Your task to perform on an android device: toggle pop-ups in chrome Image 0: 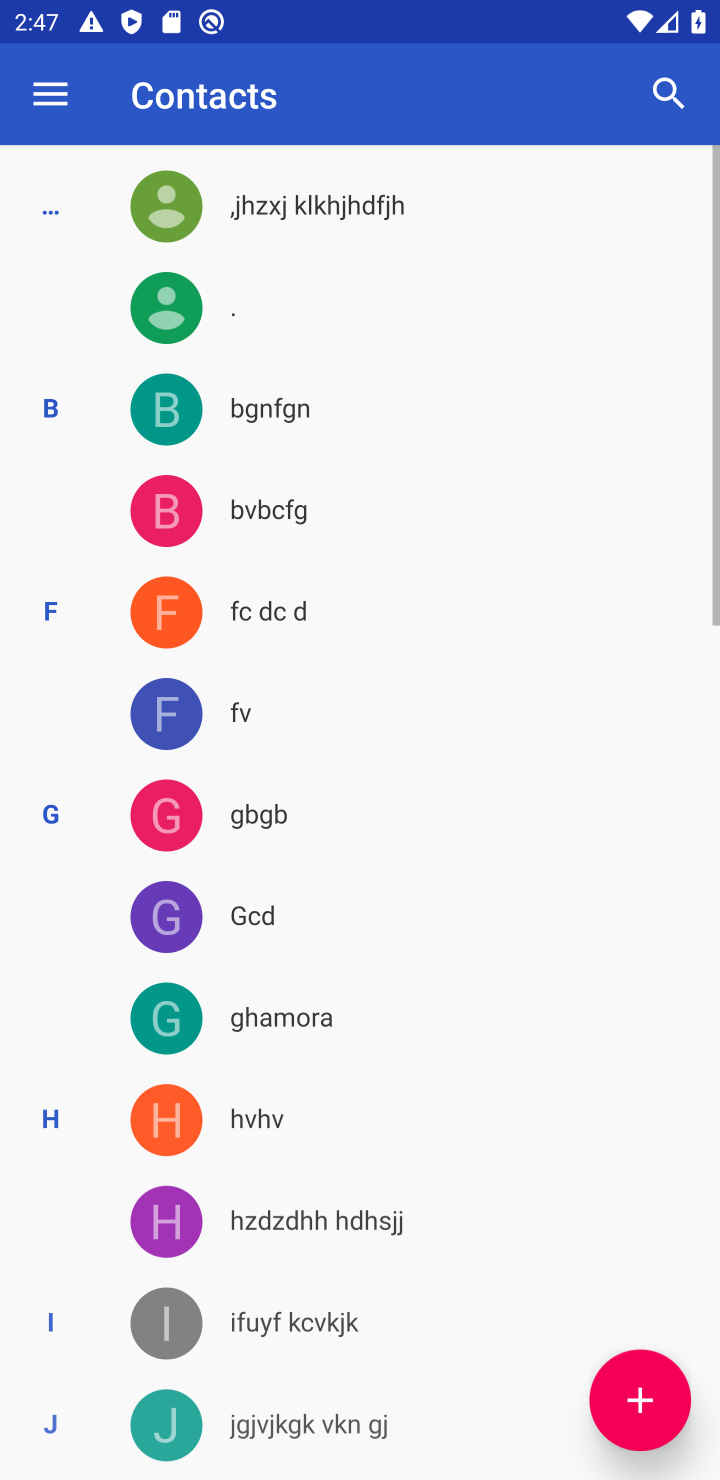
Step 0: press home button
Your task to perform on an android device: toggle pop-ups in chrome Image 1: 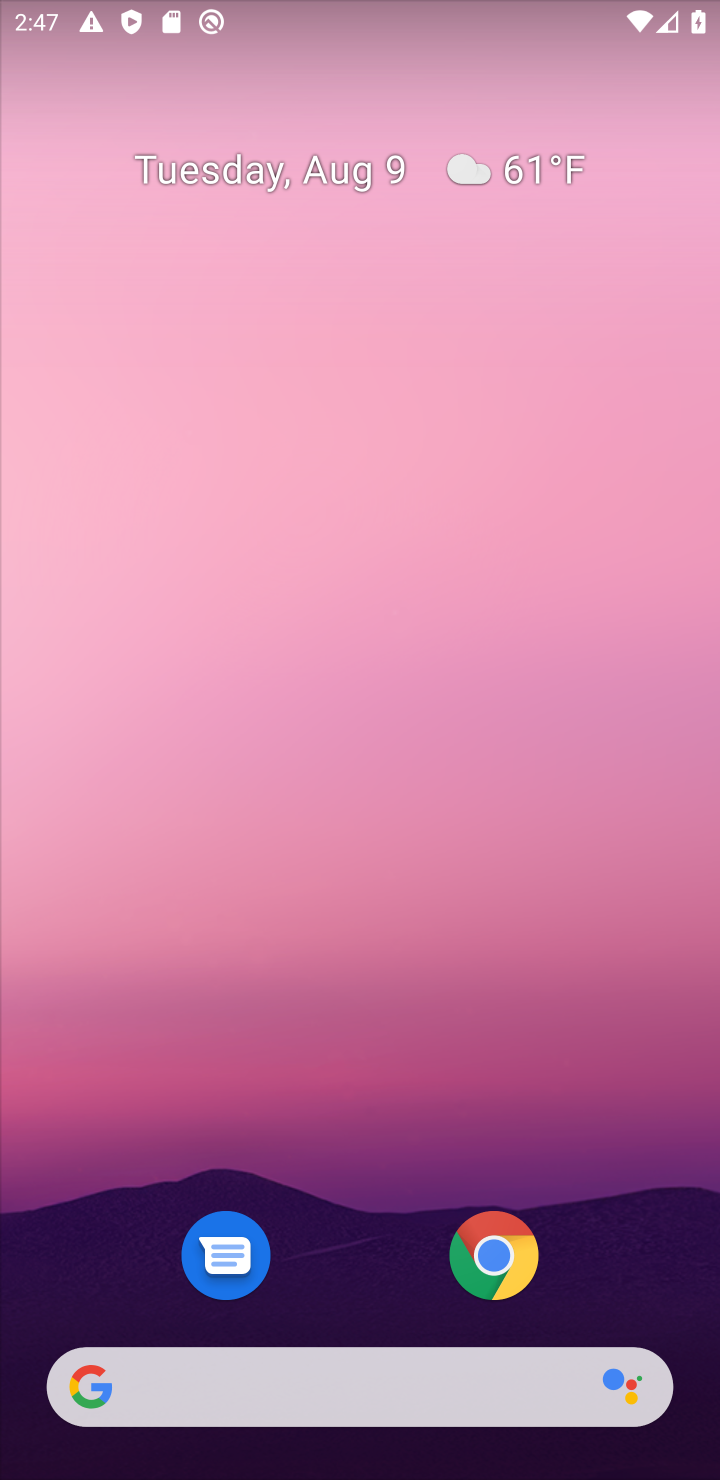
Step 1: drag from (503, 883) to (534, 361)
Your task to perform on an android device: toggle pop-ups in chrome Image 2: 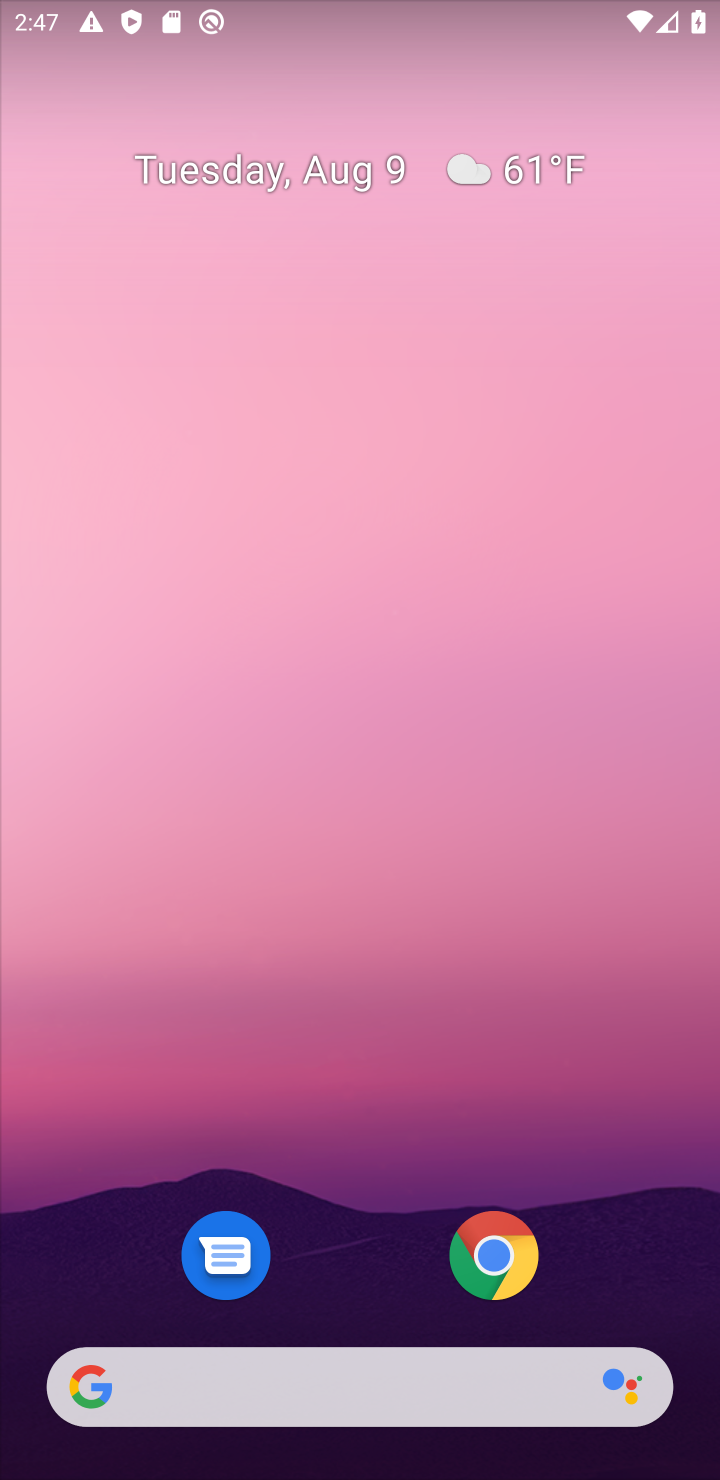
Step 2: drag from (290, 1235) to (367, 391)
Your task to perform on an android device: toggle pop-ups in chrome Image 3: 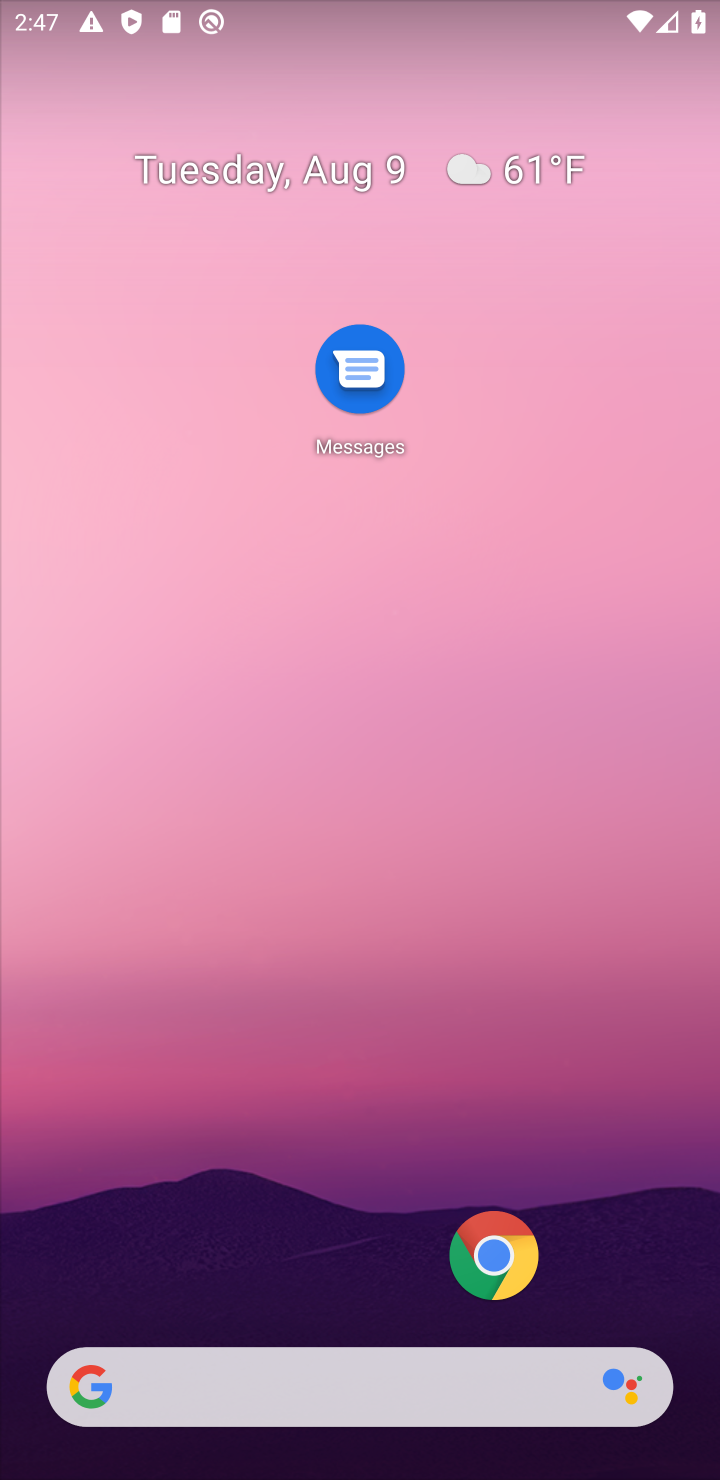
Step 3: drag from (345, 1094) to (430, 563)
Your task to perform on an android device: toggle pop-ups in chrome Image 4: 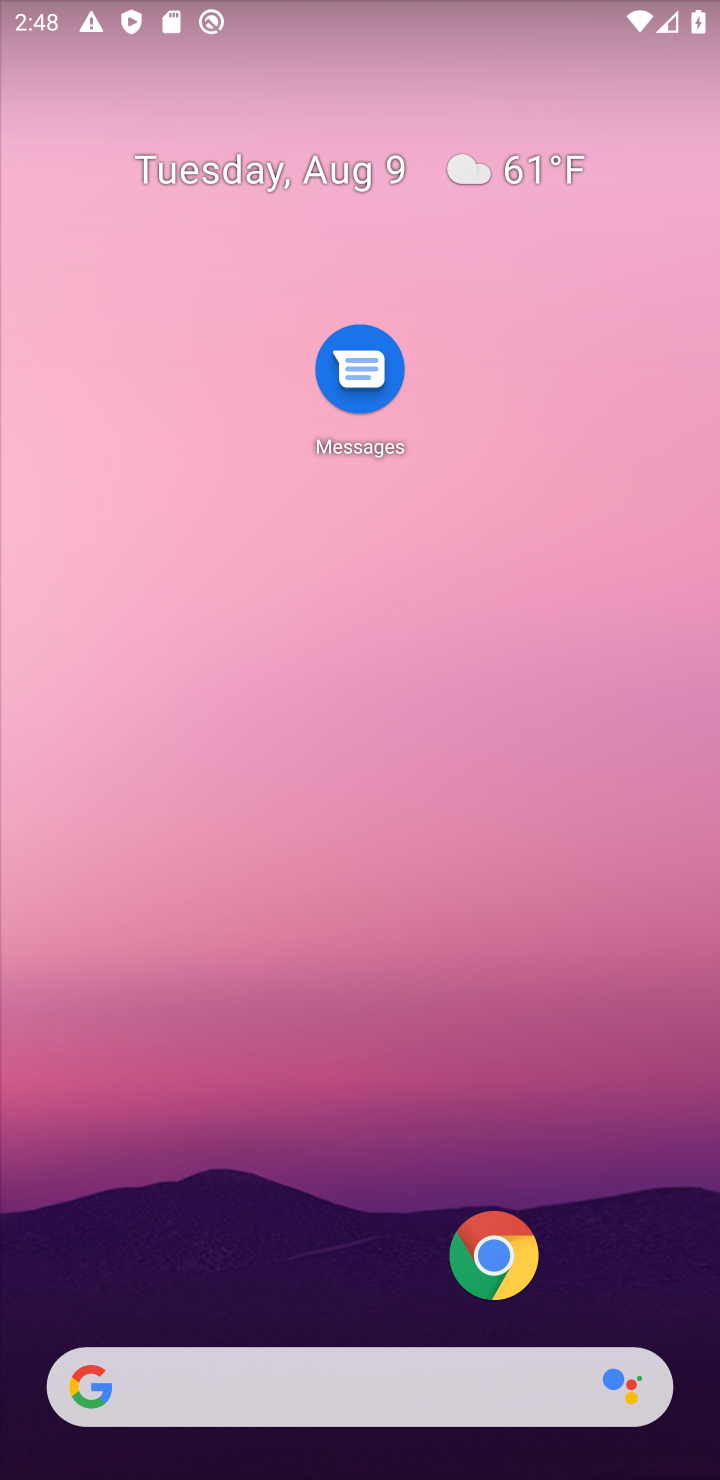
Step 4: drag from (216, 1372) to (717, 348)
Your task to perform on an android device: toggle pop-ups in chrome Image 5: 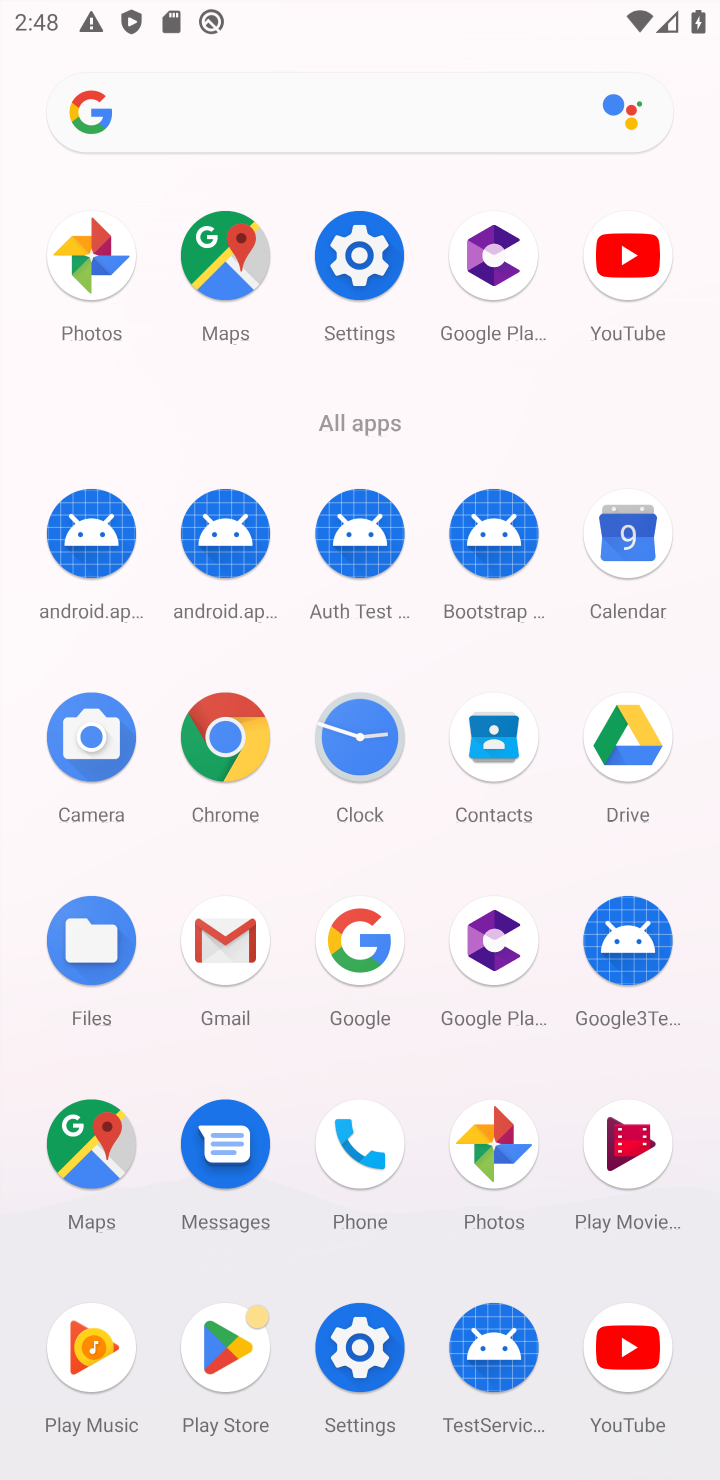
Step 5: drag from (369, 1212) to (374, 750)
Your task to perform on an android device: toggle pop-ups in chrome Image 6: 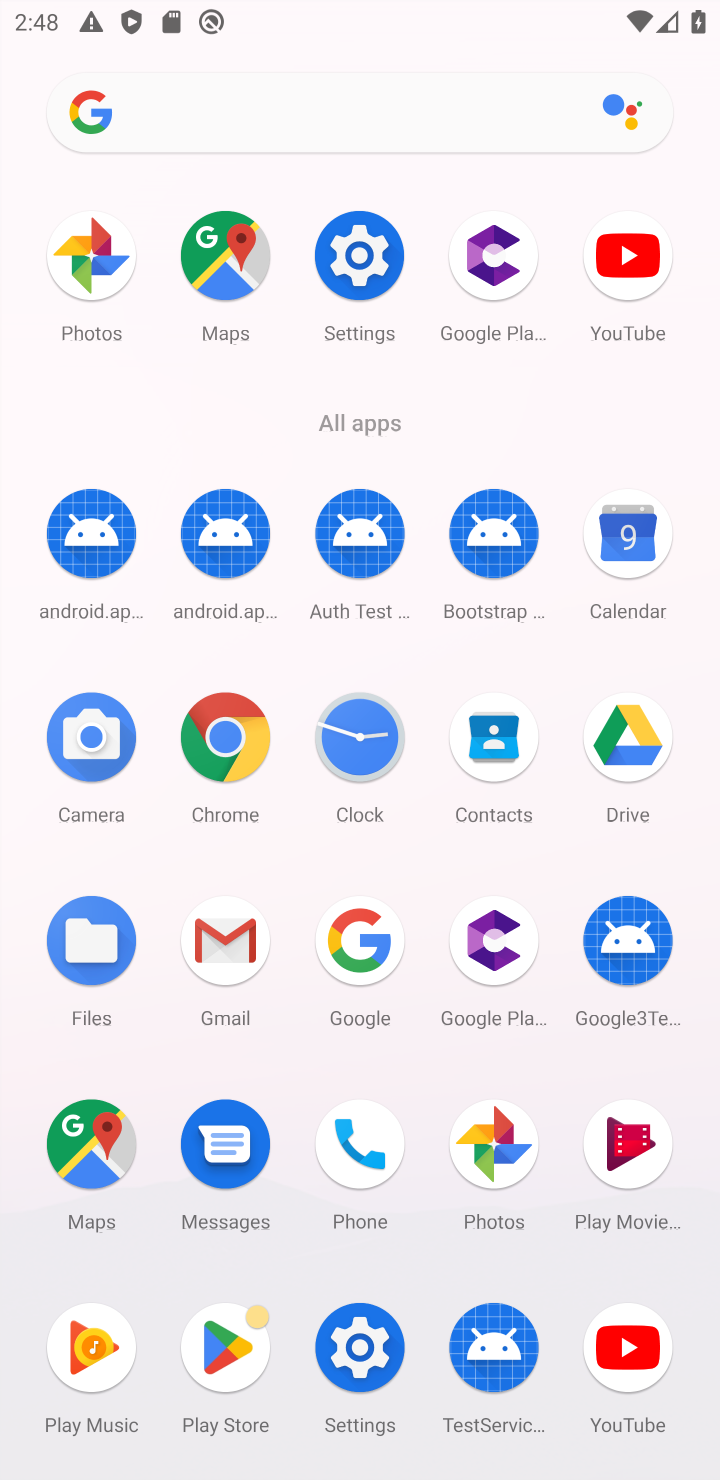
Step 6: click (204, 718)
Your task to perform on an android device: toggle pop-ups in chrome Image 7: 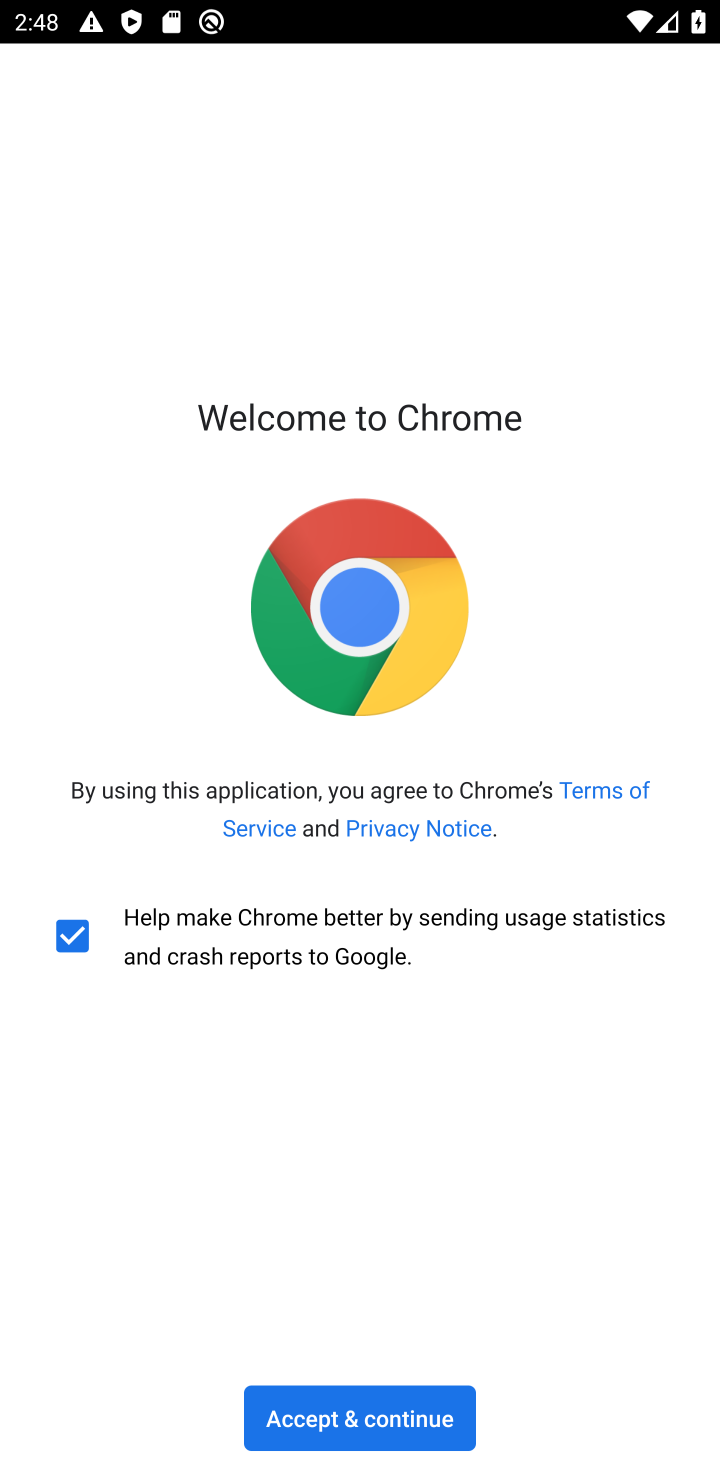
Step 7: click (356, 1400)
Your task to perform on an android device: toggle pop-ups in chrome Image 8: 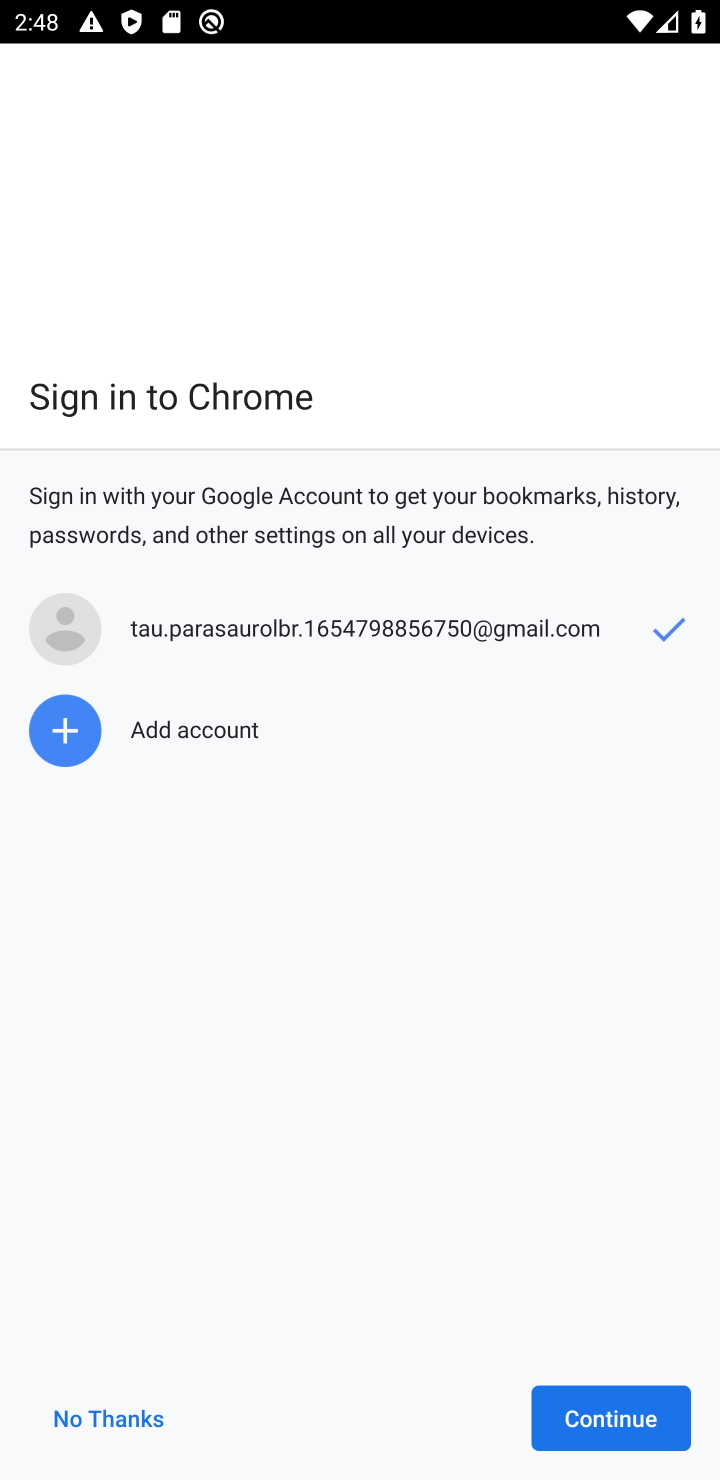
Step 8: click (651, 1425)
Your task to perform on an android device: toggle pop-ups in chrome Image 9: 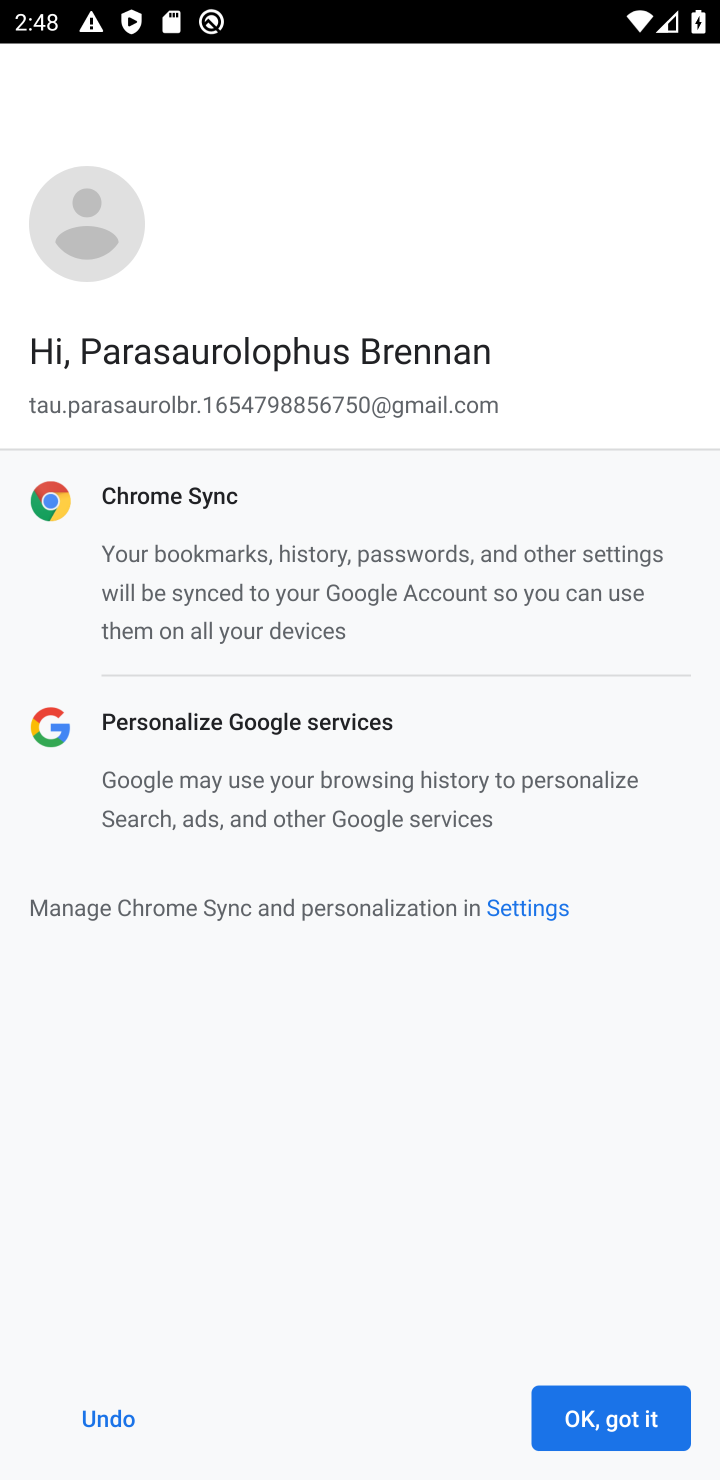
Step 9: click (651, 1425)
Your task to perform on an android device: toggle pop-ups in chrome Image 10: 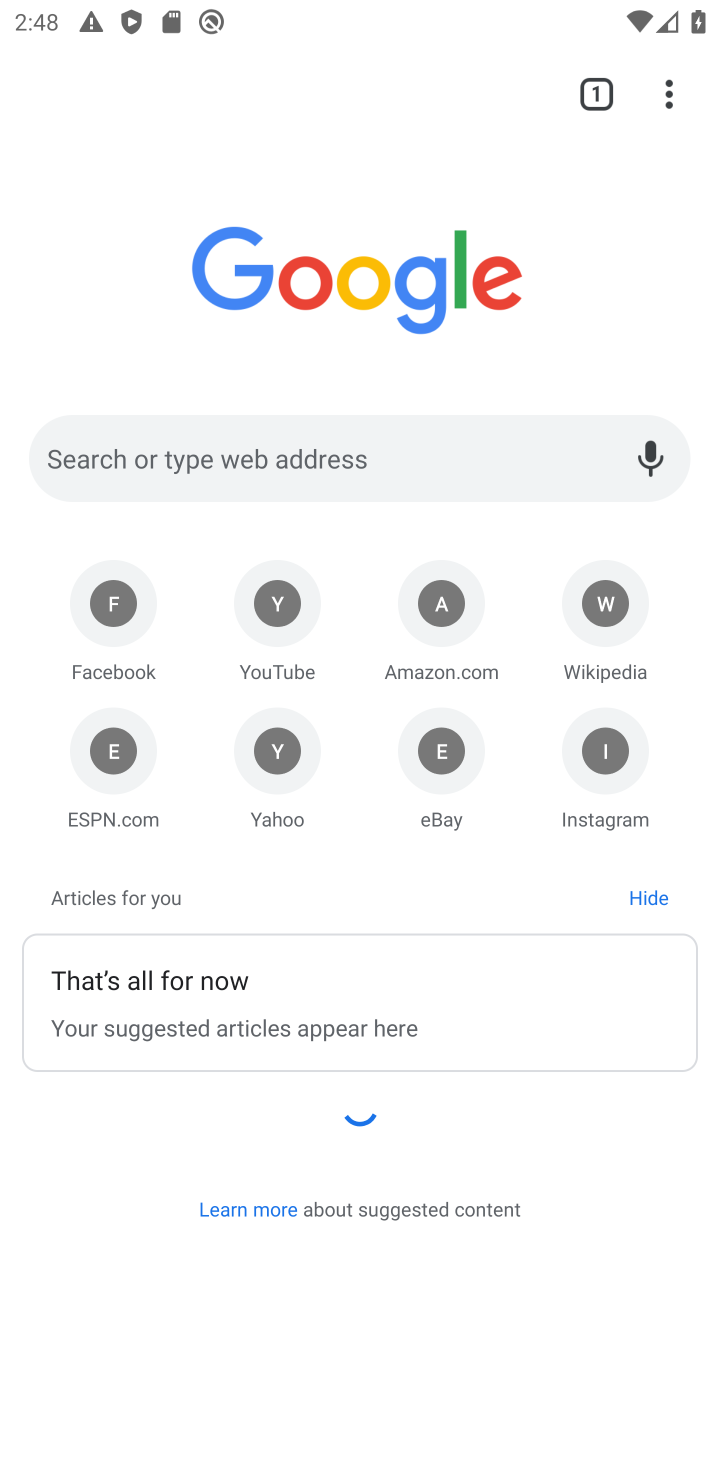
Step 10: click (684, 73)
Your task to perform on an android device: toggle pop-ups in chrome Image 11: 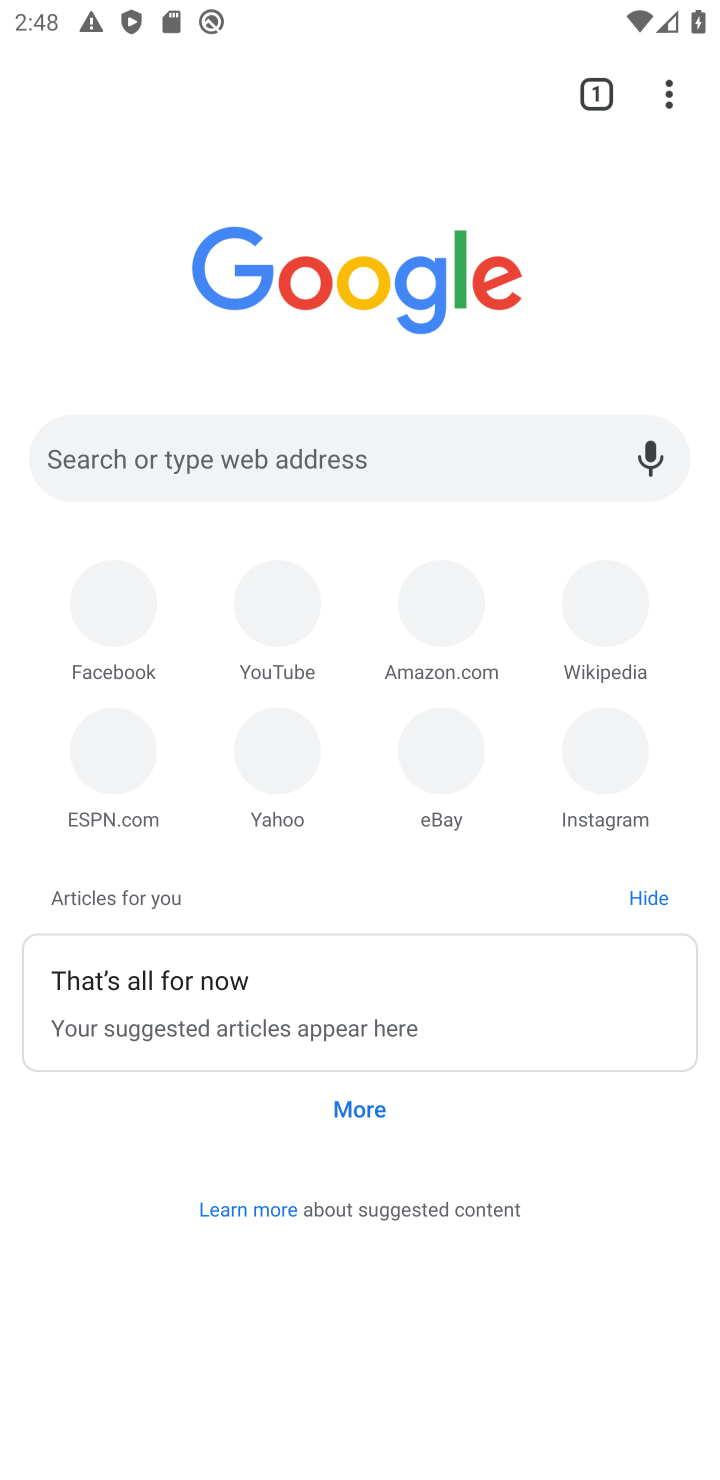
Step 11: click (682, 76)
Your task to perform on an android device: toggle pop-ups in chrome Image 12: 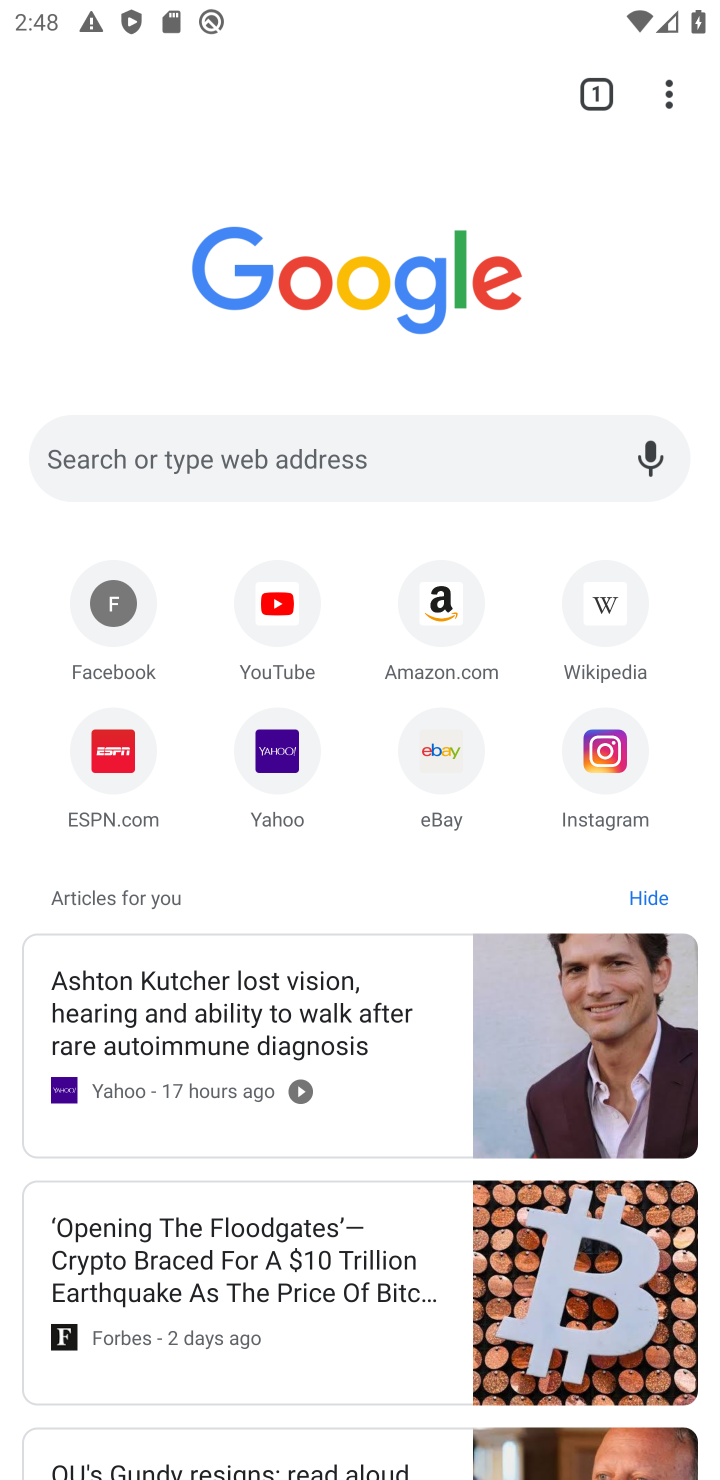
Step 12: click (689, 89)
Your task to perform on an android device: toggle pop-ups in chrome Image 13: 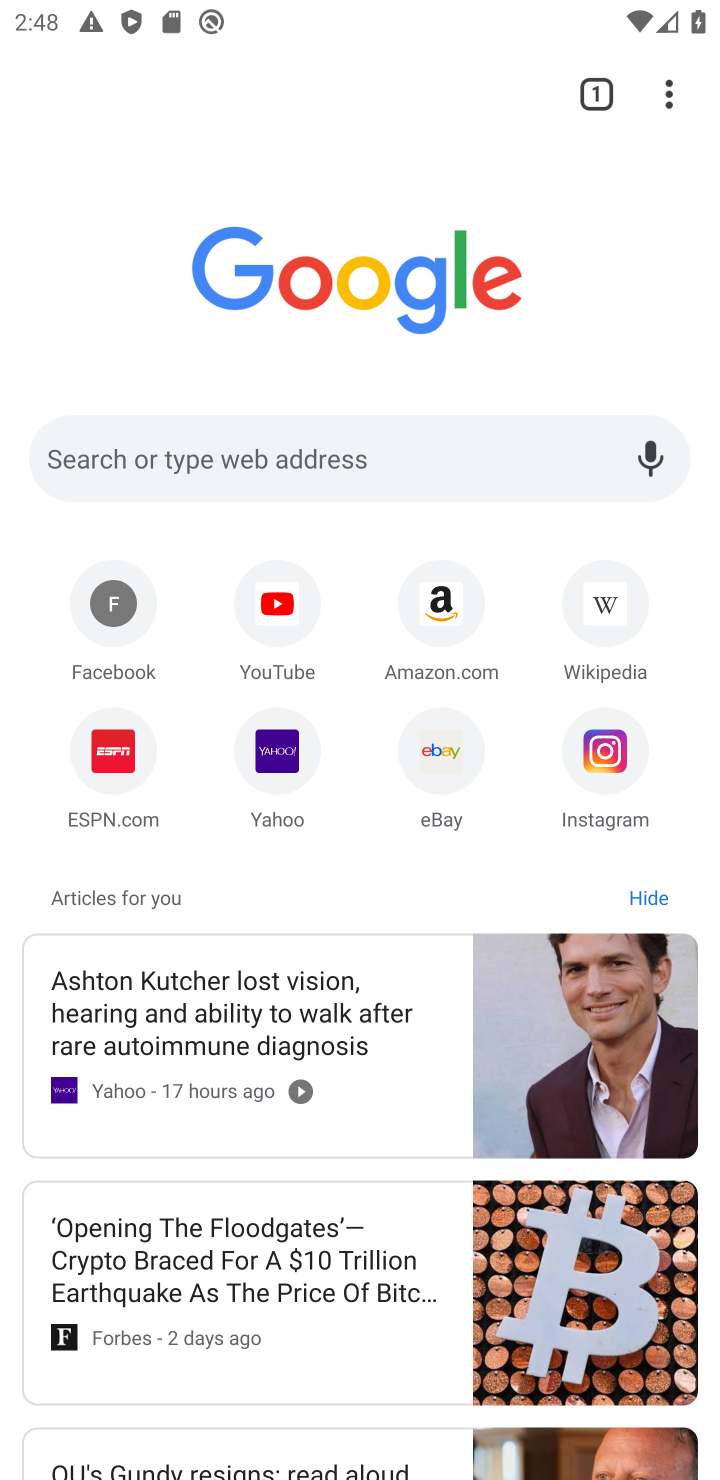
Step 13: click (680, 78)
Your task to perform on an android device: toggle pop-ups in chrome Image 14: 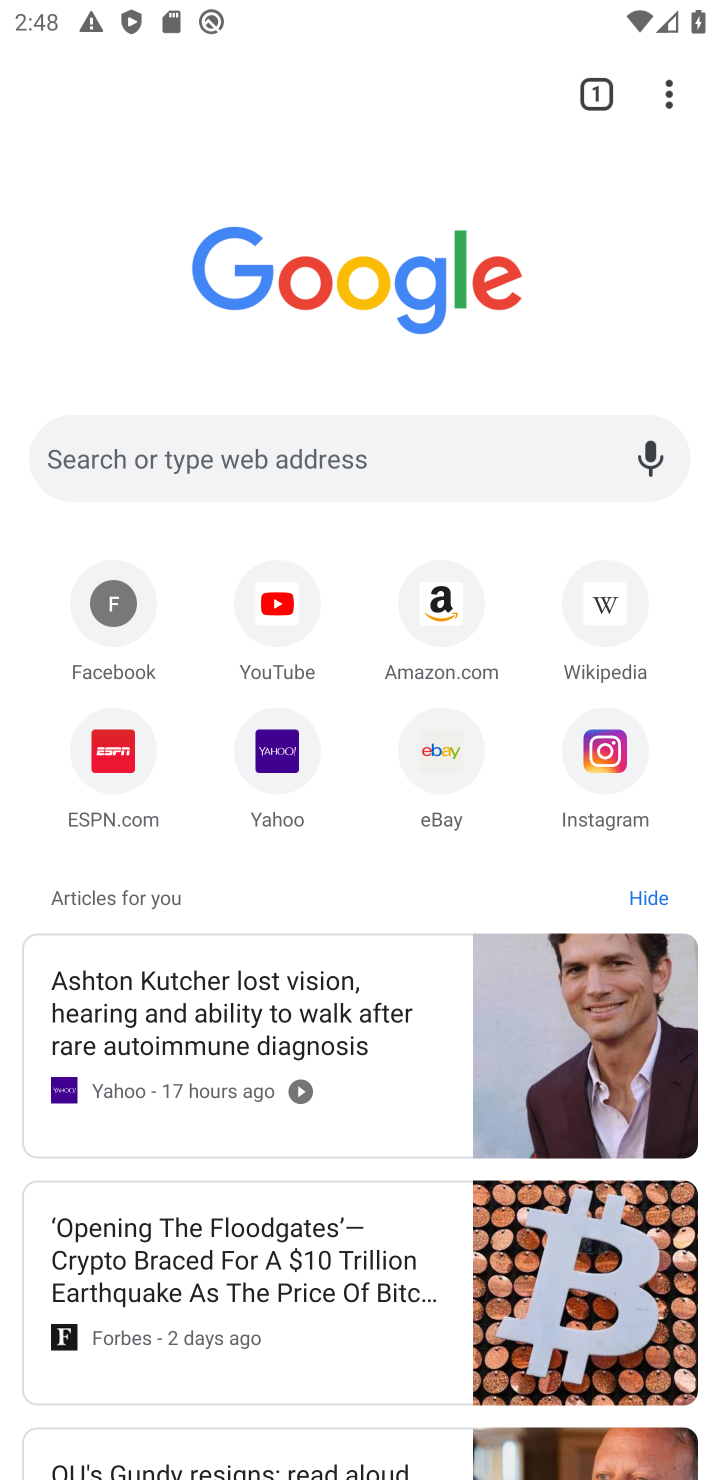
Step 14: click (666, 96)
Your task to perform on an android device: toggle pop-ups in chrome Image 15: 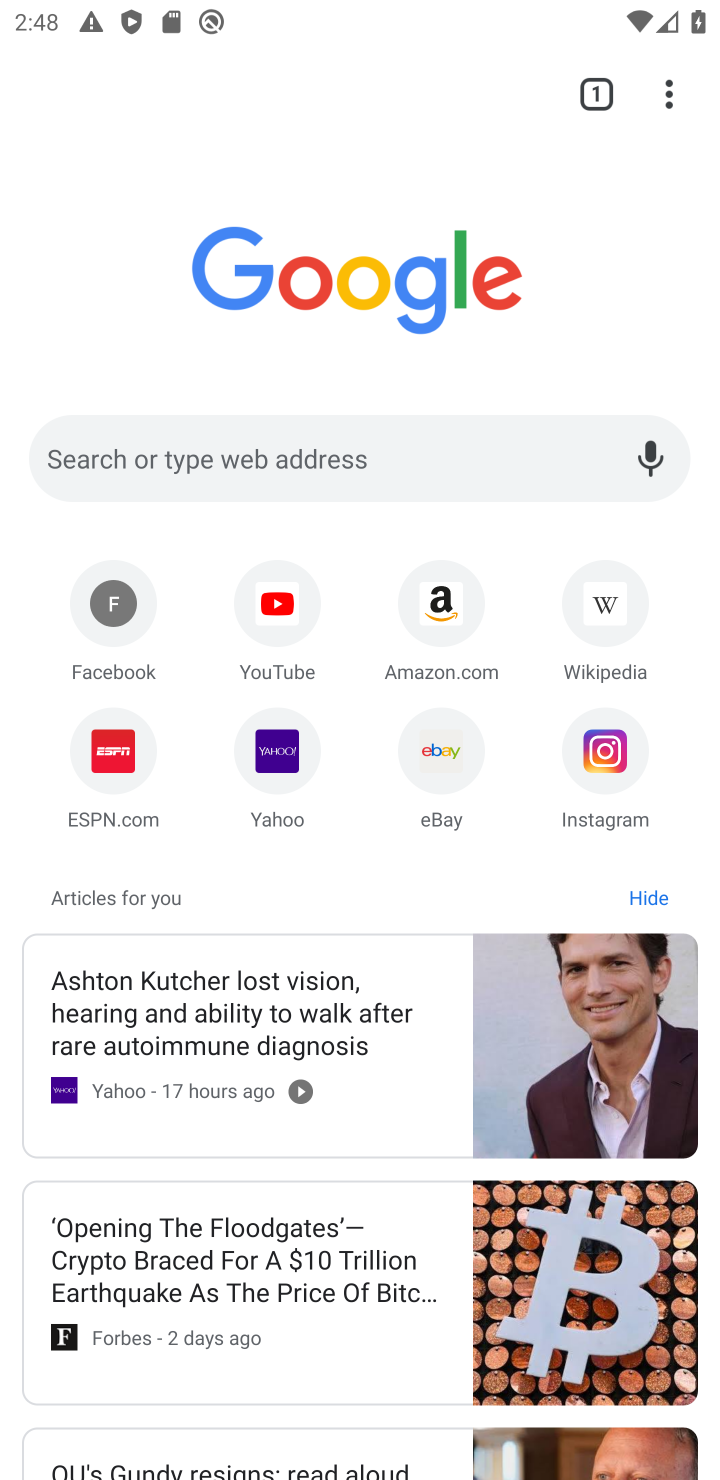
Step 15: click (666, 96)
Your task to perform on an android device: toggle pop-ups in chrome Image 16: 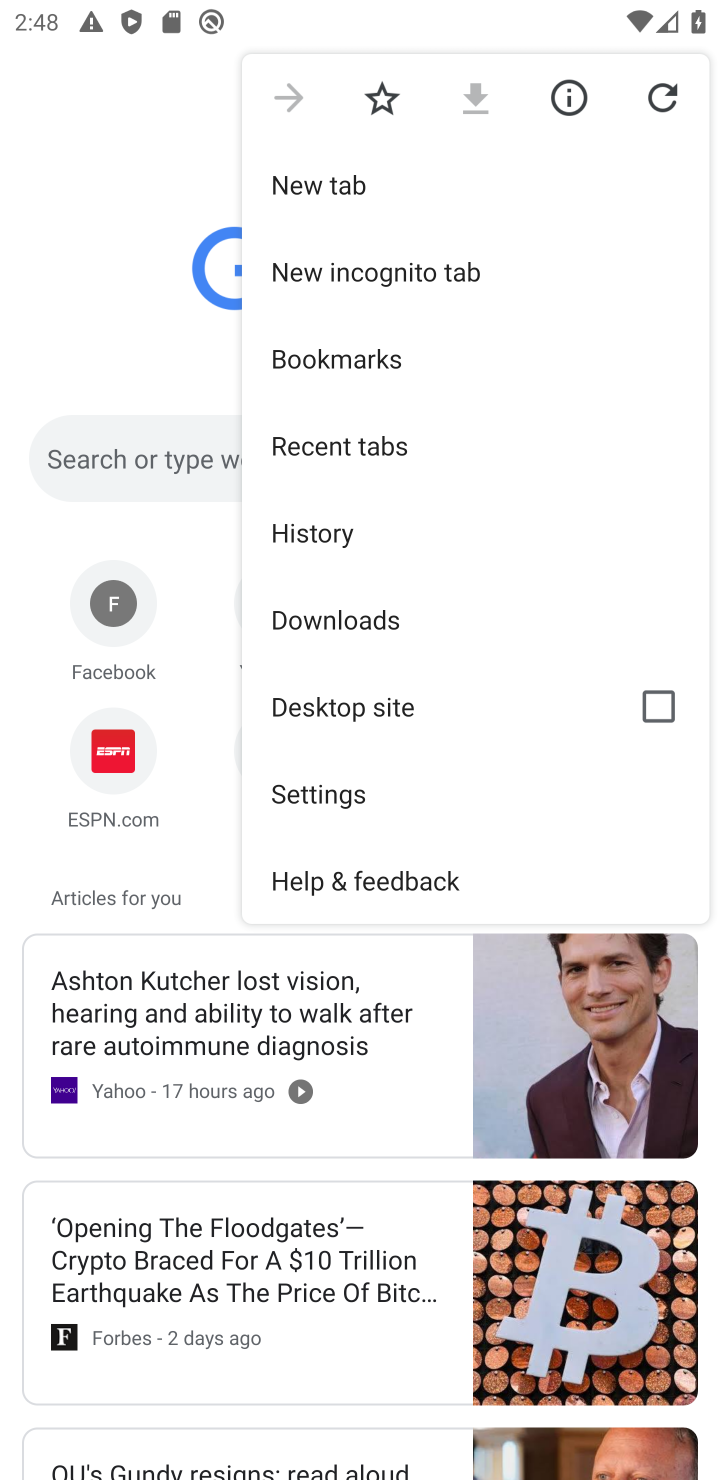
Step 16: click (666, 96)
Your task to perform on an android device: toggle pop-ups in chrome Image 17: 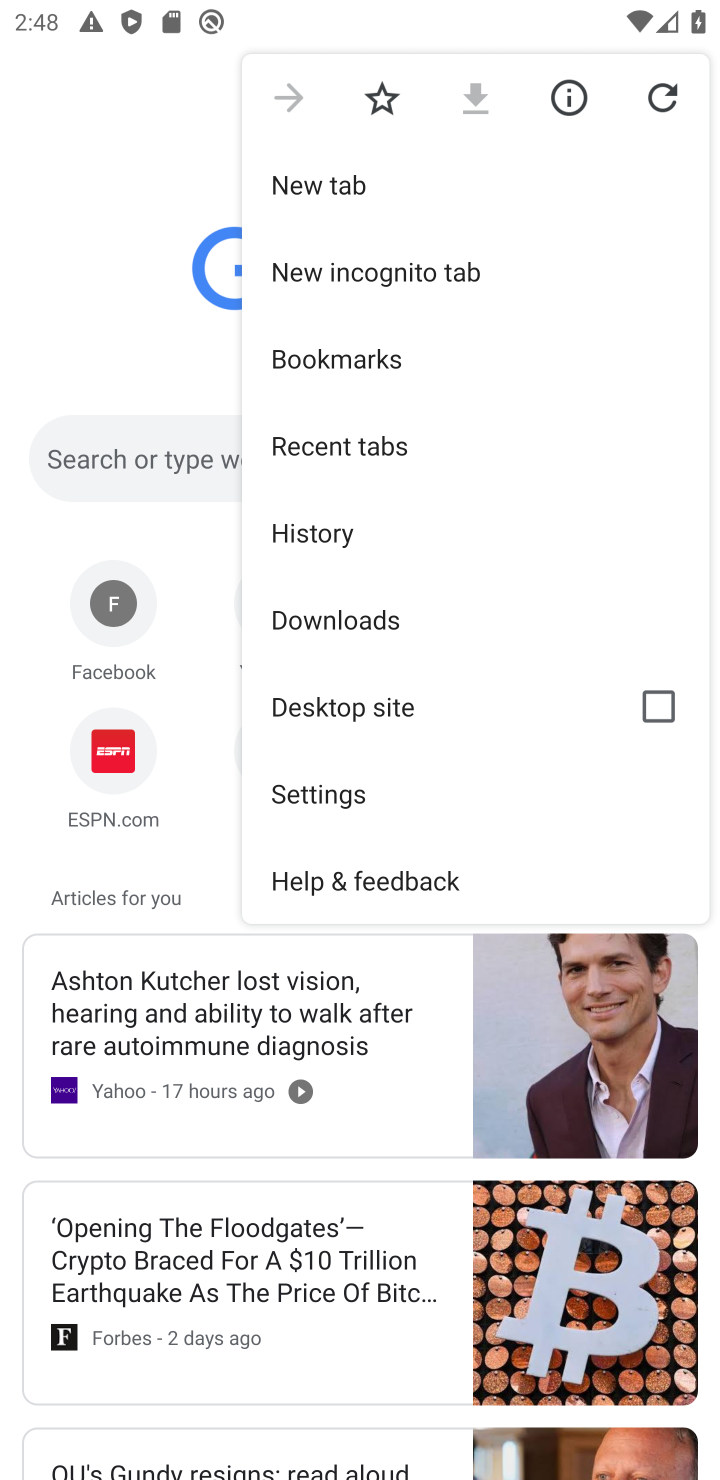
Step 17: click (666, 96)
Your task to perform on an android device: toggle pop-ups in chrome Image 18: 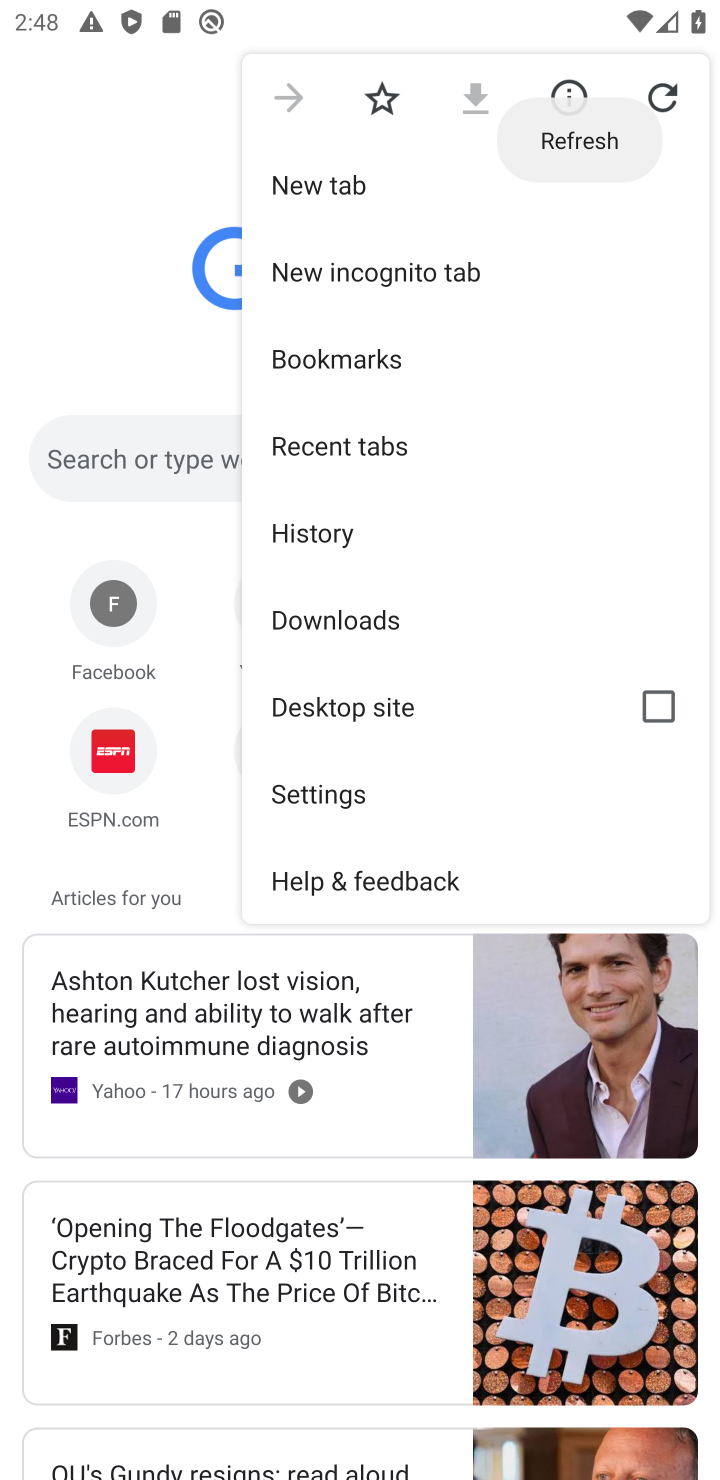
Step 18: click (377, 793)
Your task to perform on an android device: toggle pop-ups in chrome Image 19: 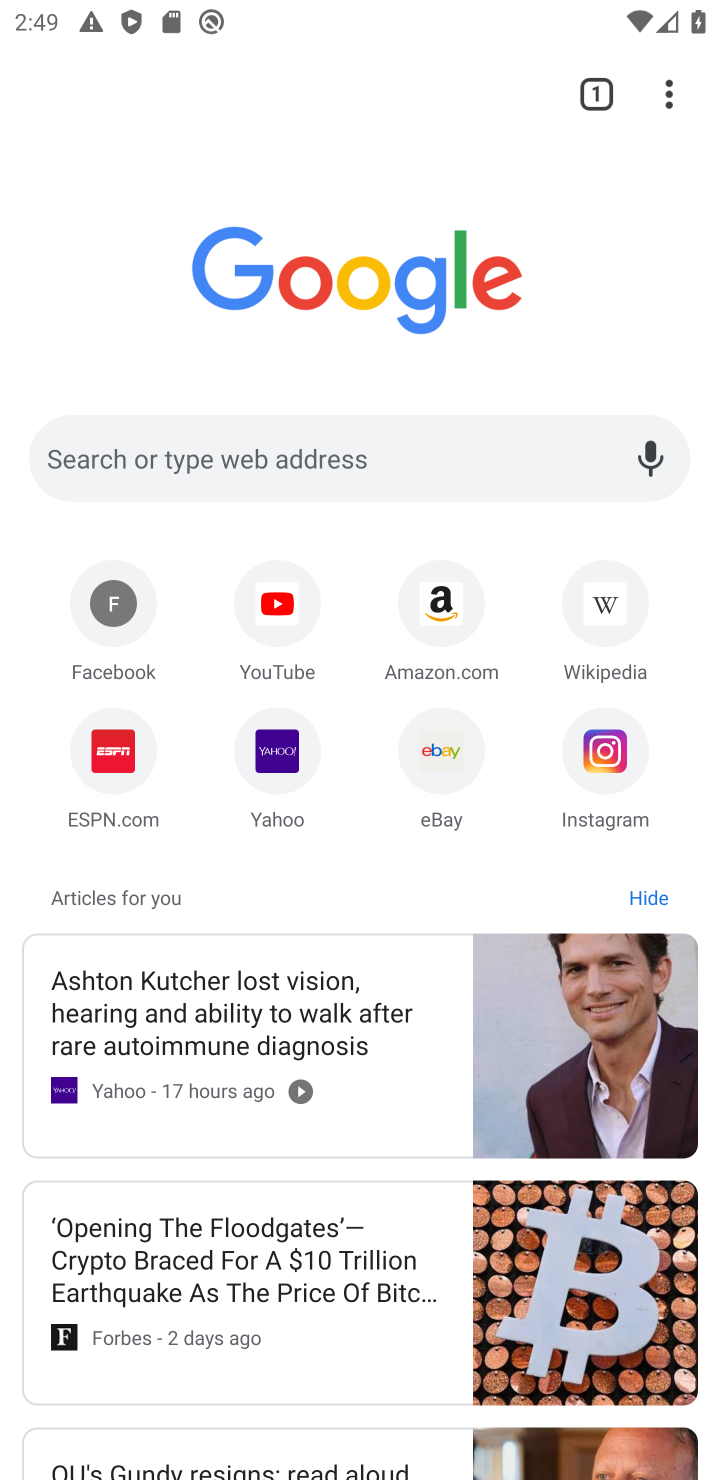
Step 19: click (377, 793)
Your task to perform on an android device: toggle pop-ups in chrome Image 20: 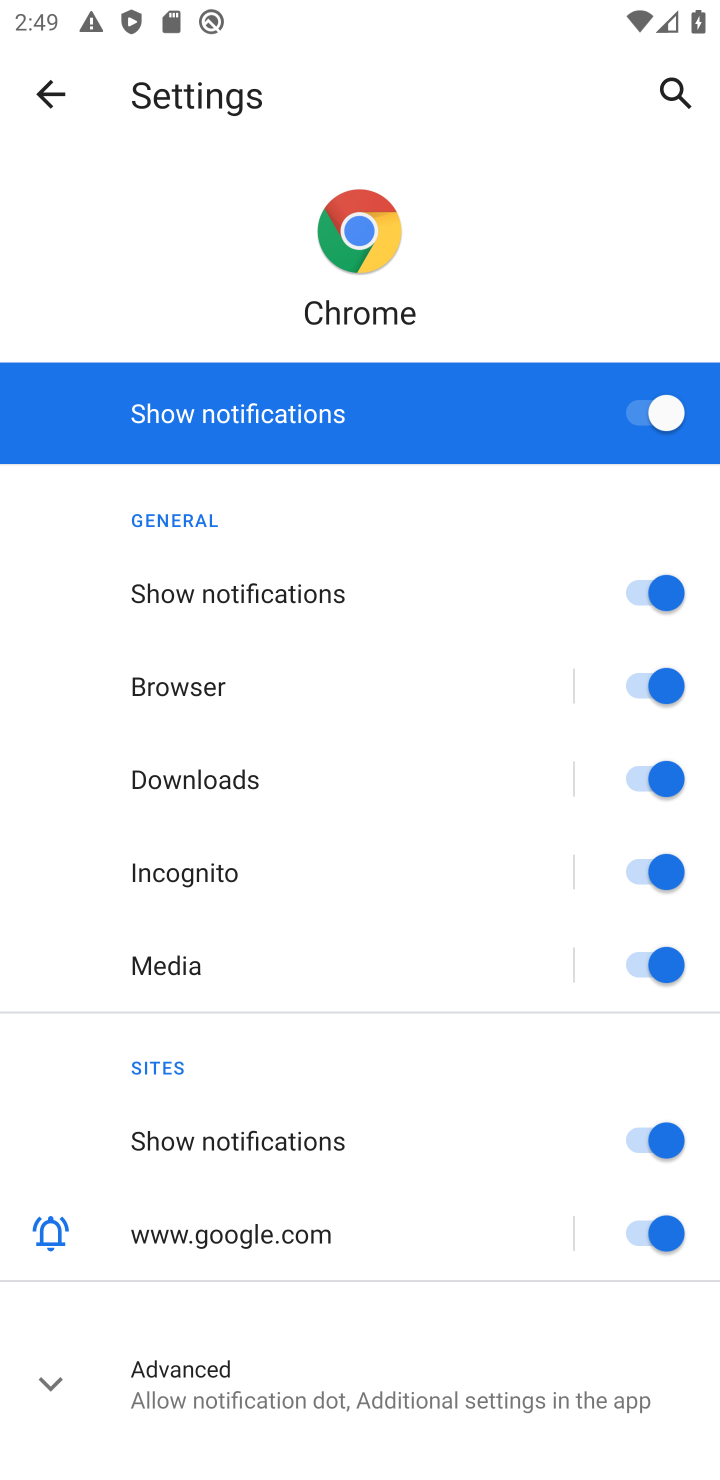
Step 20: click (65, 73)
Your task to perform on an android device: toggle pop-ups in chrome Image 21: 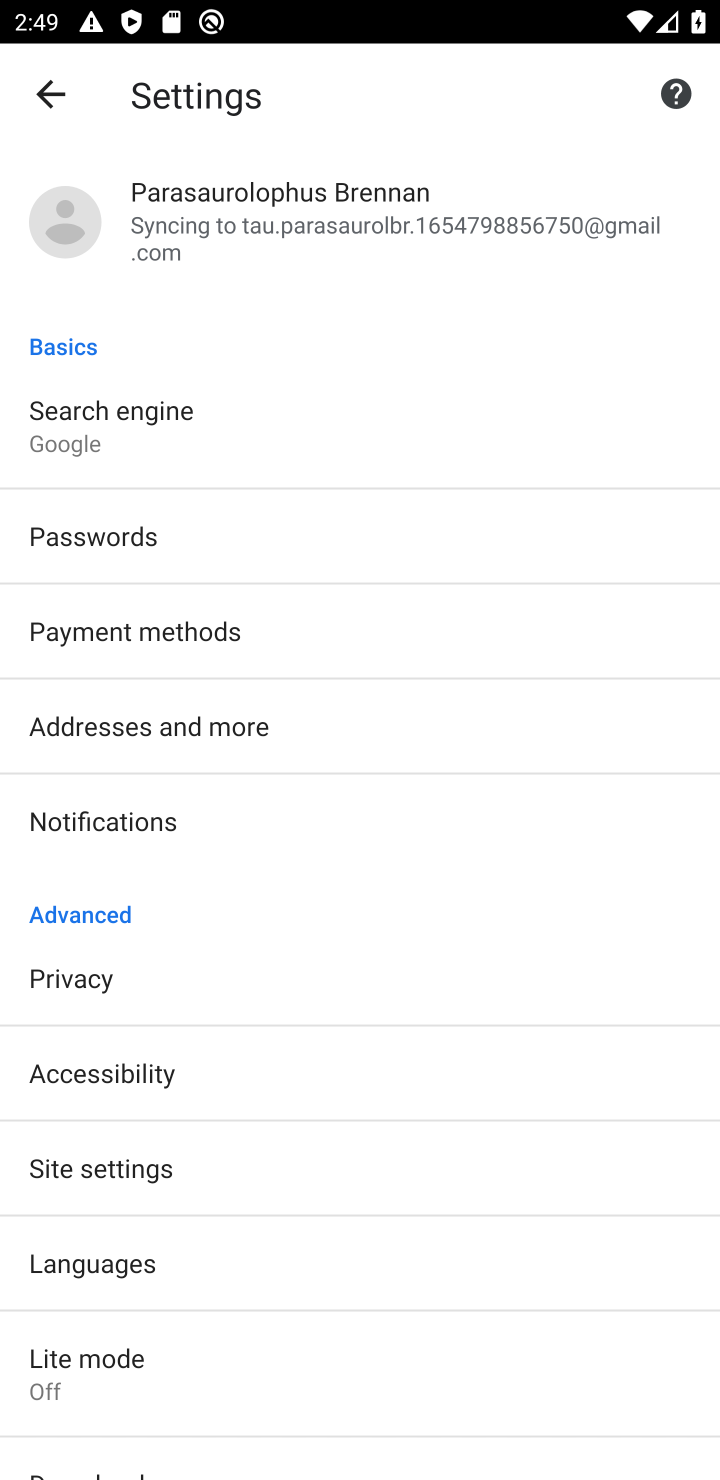
Step 21: drag from (245, 1279) to (292, 784)
Your task to perform on an android device: toggle pop-ups in chrome Image 22: 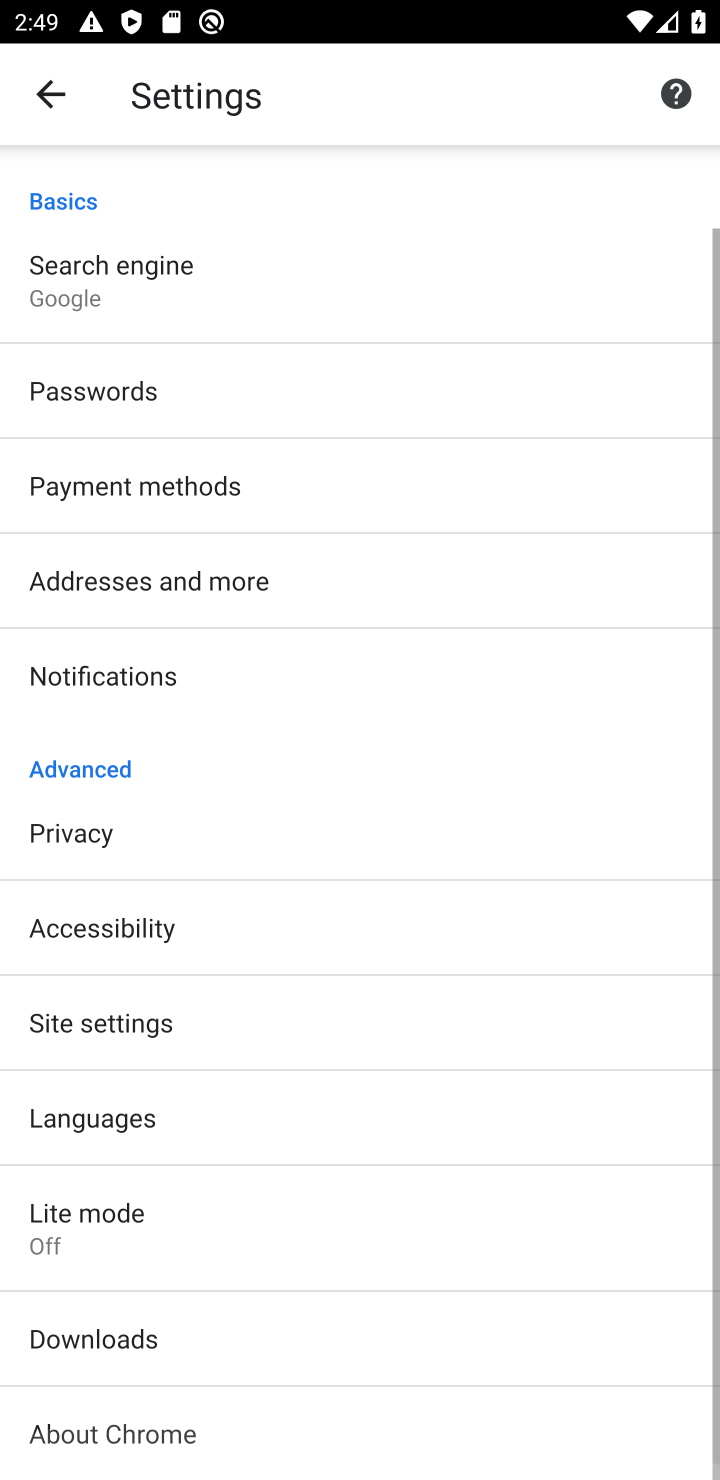
Step 22: click (193, 1019)
Your task to perform on an android device: toggle pop-ups in chrome Image 23: 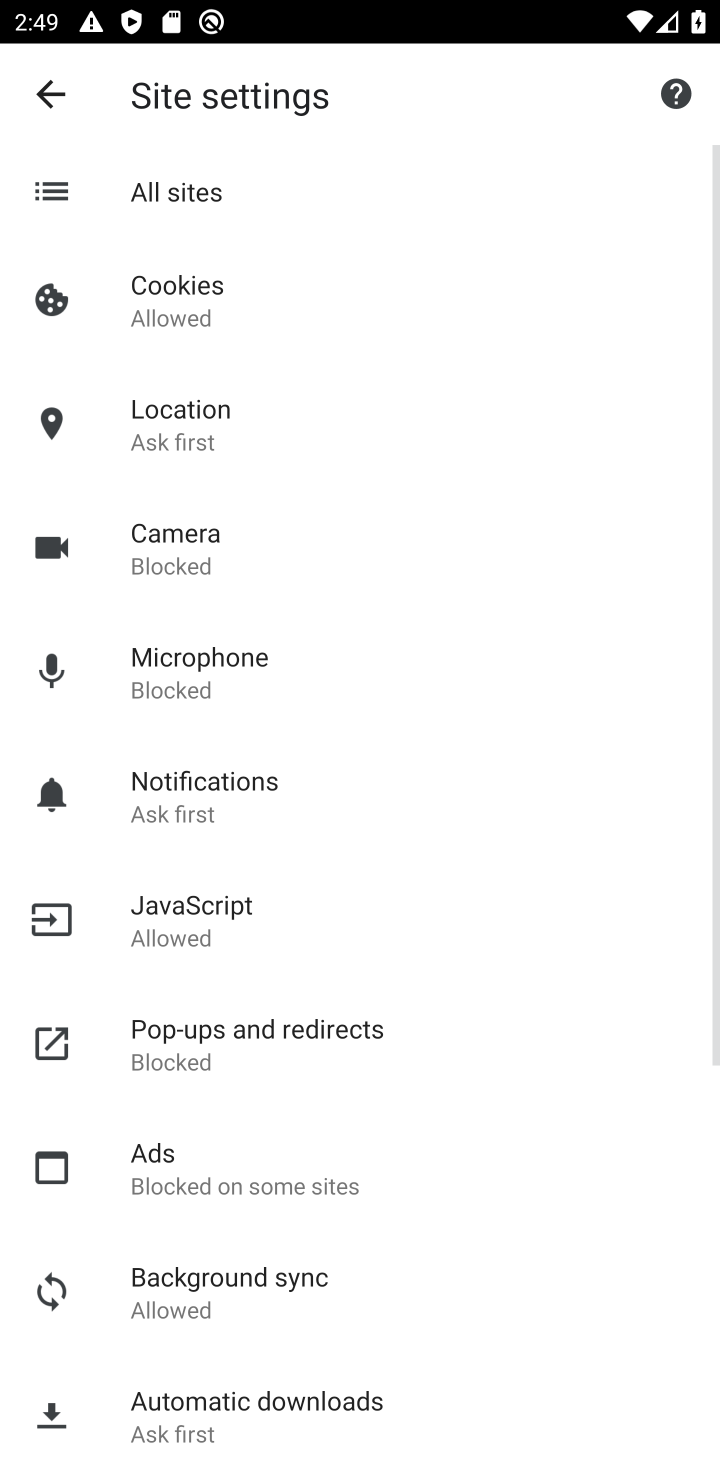
Step 23: click (193, 1034)
Your task to perform on an android device: toggle pop-ups in chrome Image 24: 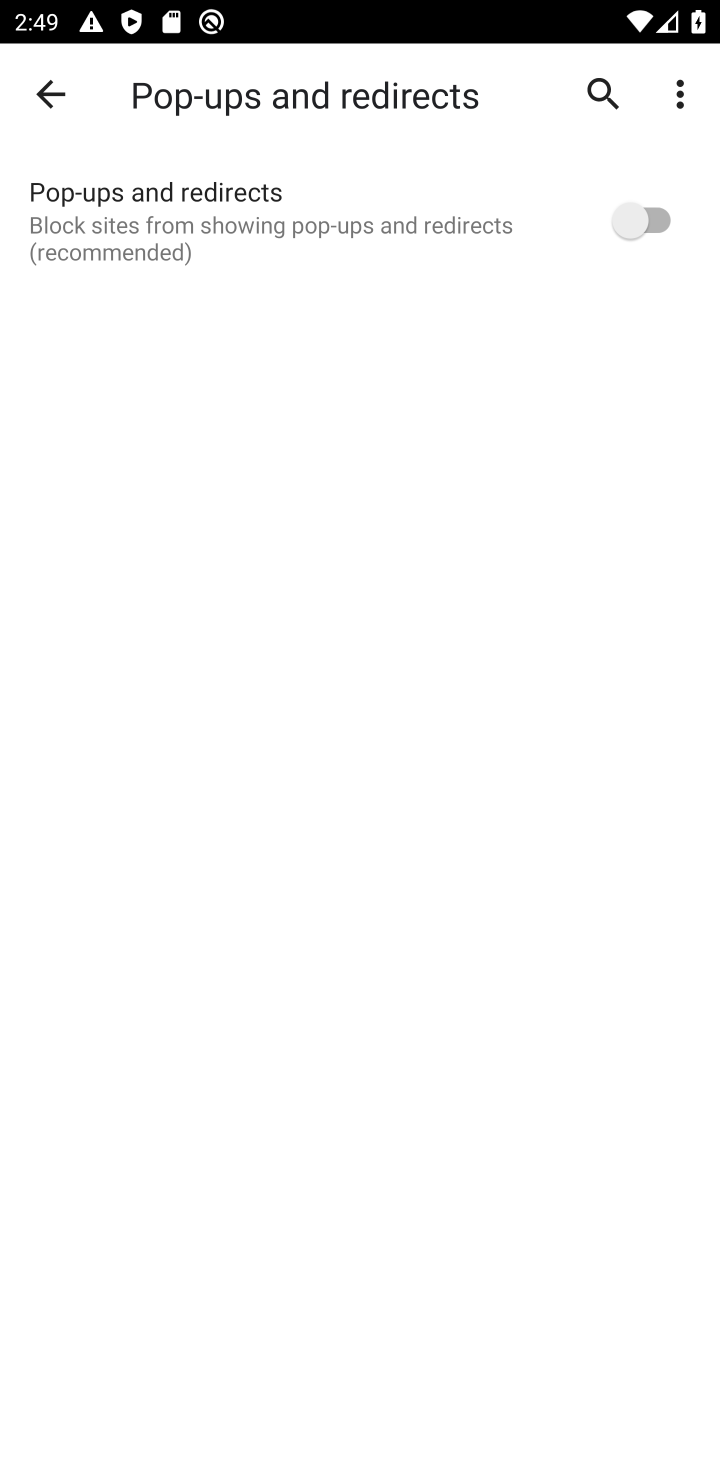
Step 24: click (642, 209)
Your task to perform on an android device: toggle pop-ups in chrome Image 25: 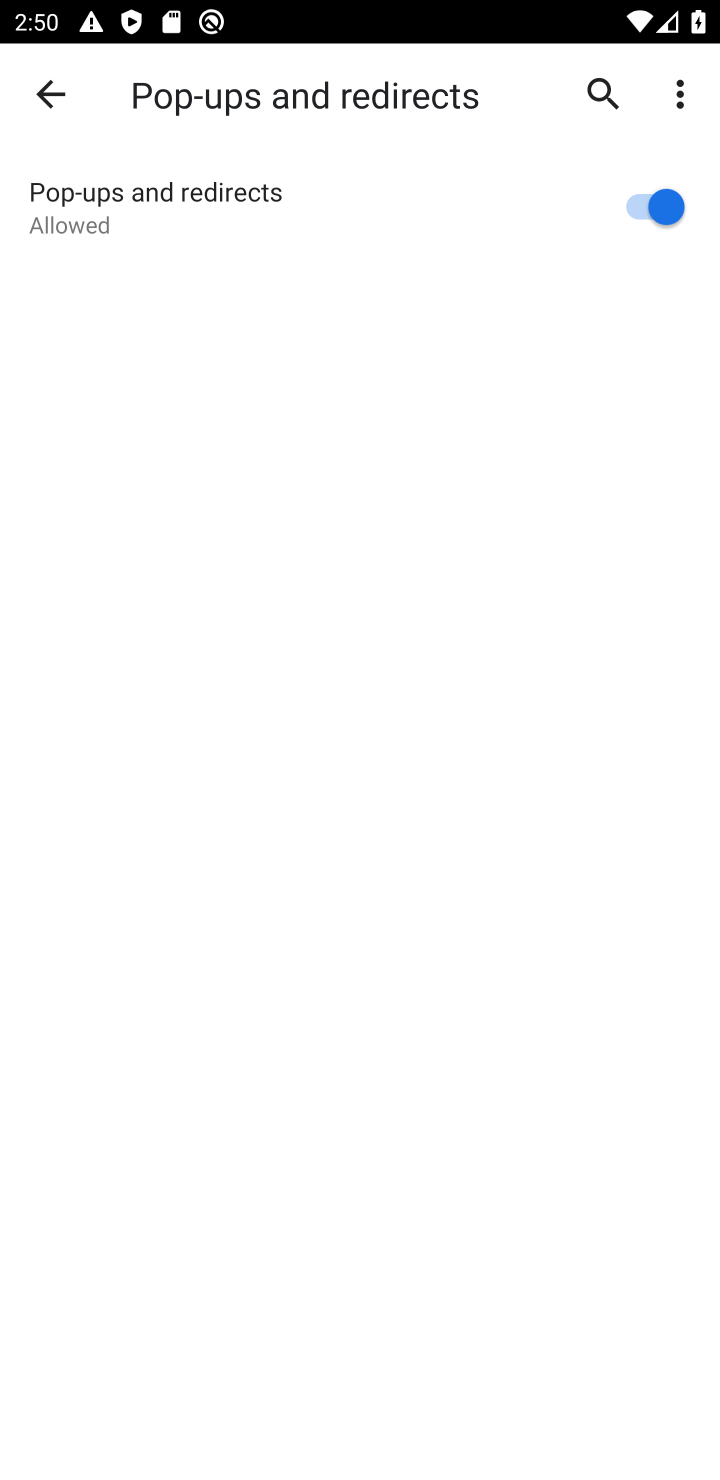
Step 25: task complete